Your task to perform on an android device: find which apps use the phone's location Image 0: 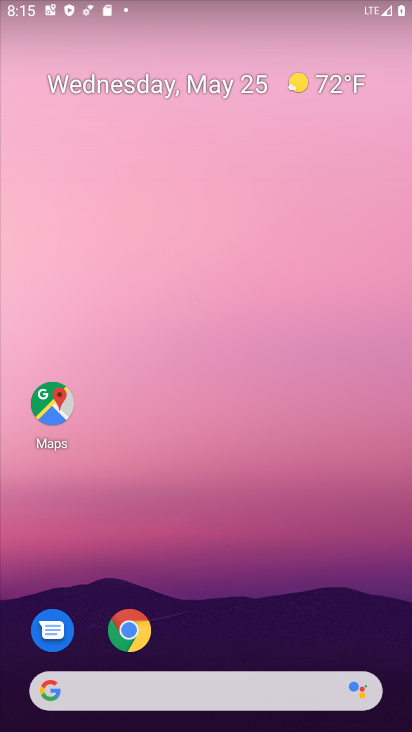
Step 0: drag from (246, 657) to (239, 277)
Your task to perform on an android device: find which apps use the phone's location Image 1: 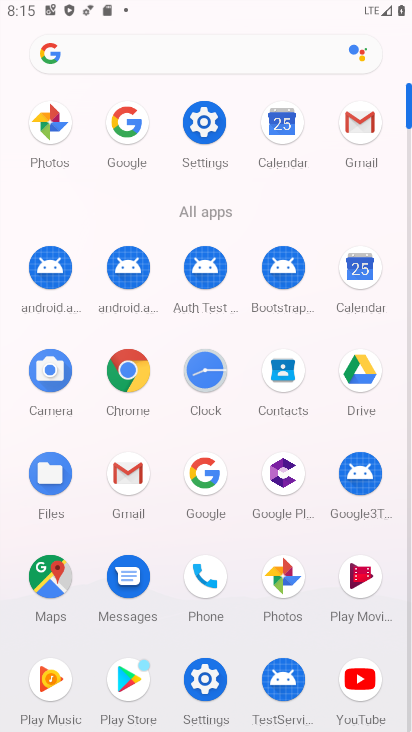
Step 1: click (193, 136)
Your task to perform on an android device: find which apps use the phone's location Image 2: 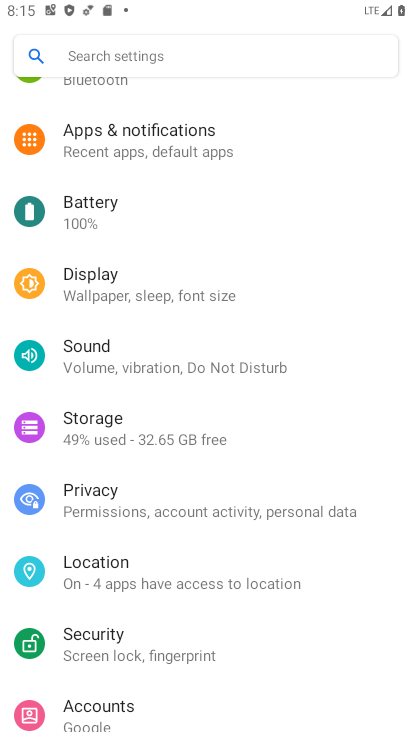
Step 2: click (144, 568)
Your task to perform on an android device: find which apps use the phone's location Image 3: 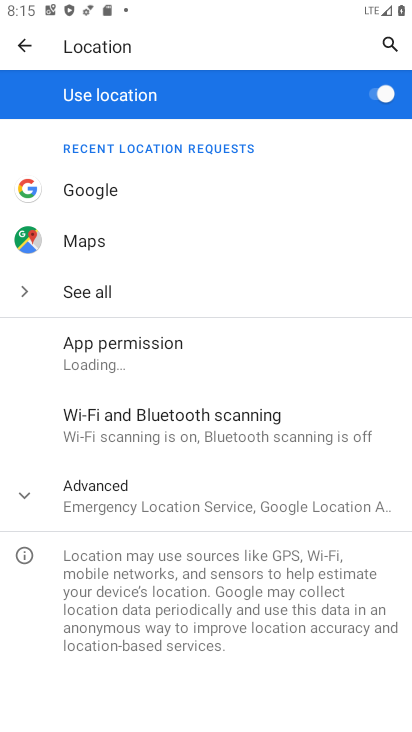
Step 3: click (158, 354)
Your task to perform on an android device: find which apps use the phone's location Image 4: 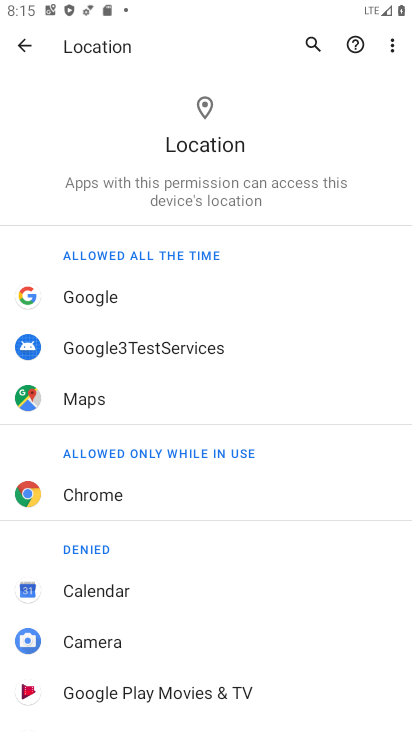
Step 4: task complete